Your task to perform on an android device: see sites visited before in the chrome app Image 0: 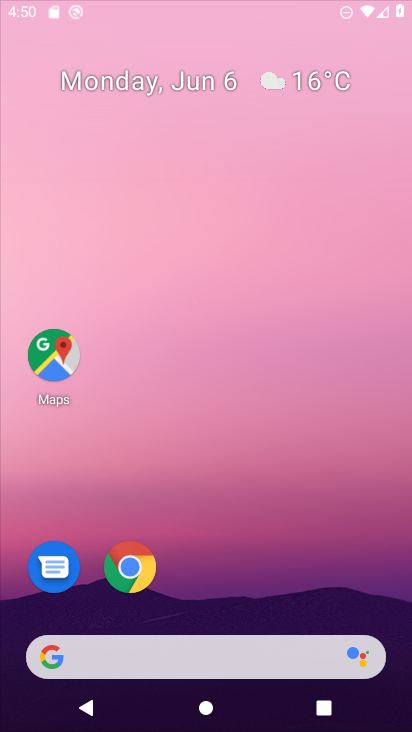
Step 0: drag from (227, 648) to (177, 247)
Your task to perform on an android device: see sites visited before in the chrome app Image 1: 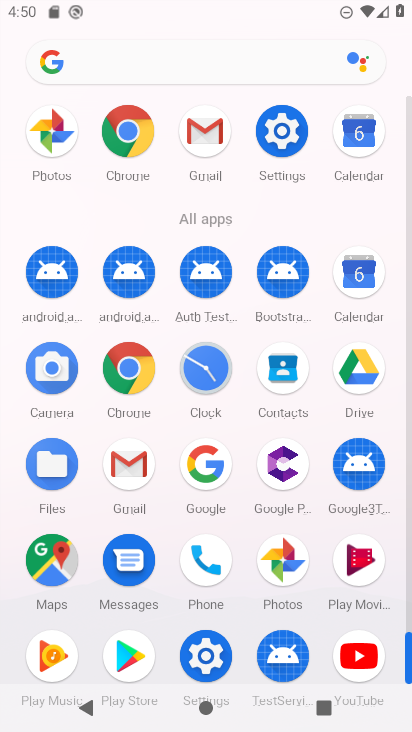
Step 1: click (140, 354)
Your task to perform on an android device: see sites visited before in the chrome app Image 2: 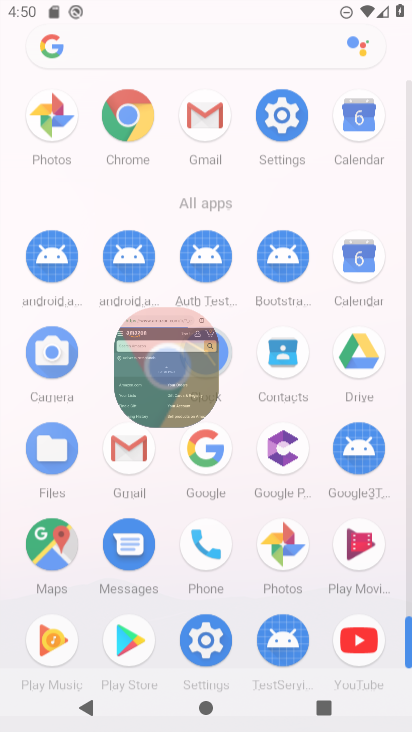
Step 2: click (140, 354)
Your task to perform on an android device: see sites visited before in the chrome app Image 3: 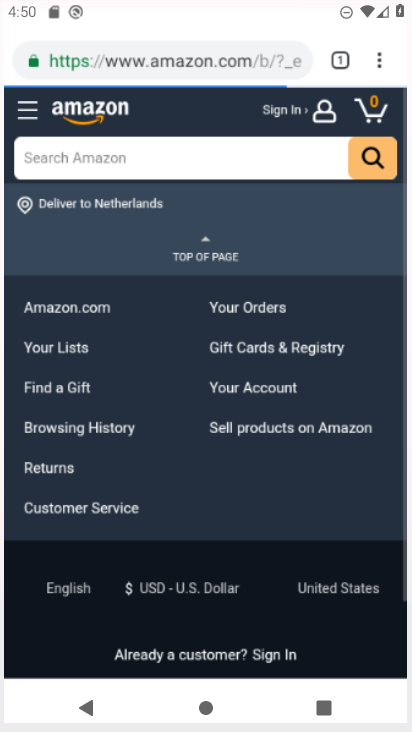
Step 3: click (140, 354)
Your task to perform on an android device: see sites visited before in the chrome app Image 4: 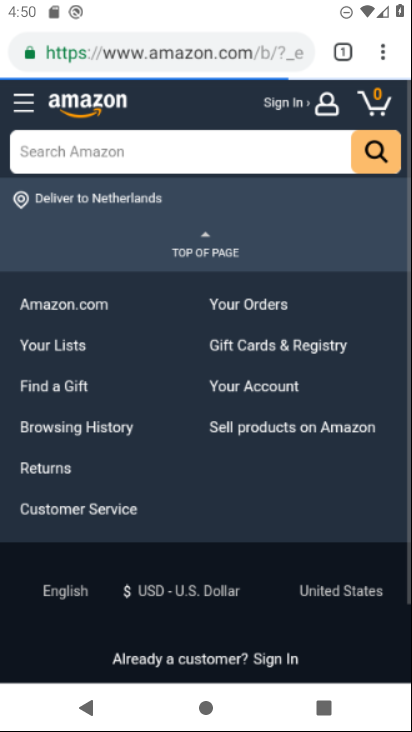
Step 4: click (140, 354)
Your task to perform on an android device: see sites visited before in the chrome app Image 5: 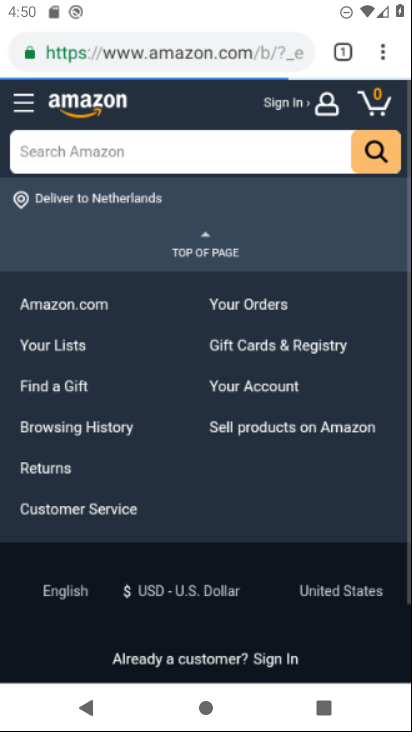
Step 5: click (140, 354)
Your task to perform on an android device: see sites visited before in the chrome app Image 6: 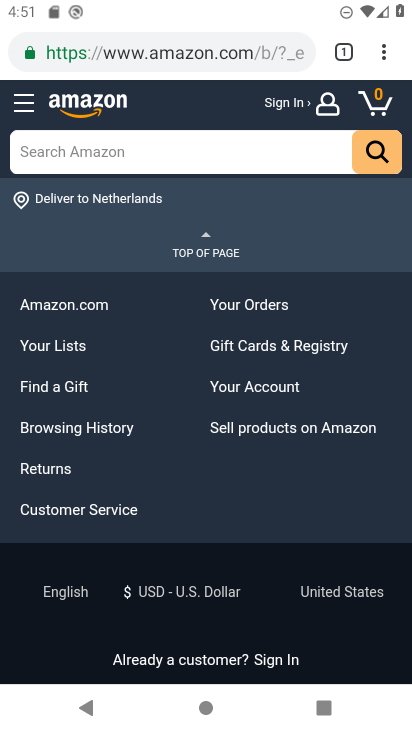
Step 6: drag from (382, 43) to (198, 249)
Your task to perform on an android device: see sites visited before in the chrome app Image 7: 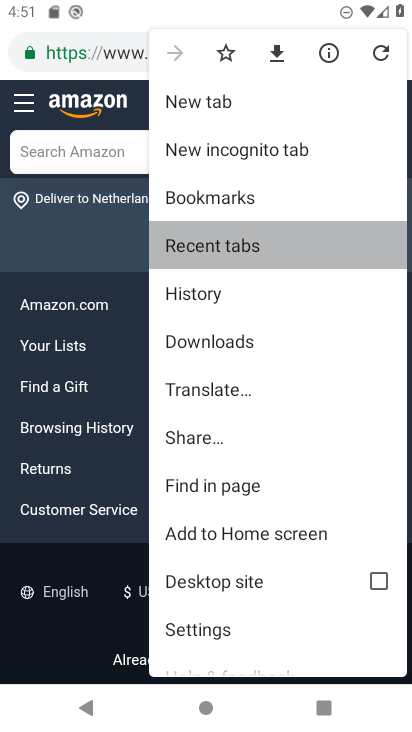
Step 7: click (197, 248)
Your task to perform on an android device: see sites visited before in the chrome app Image 8: 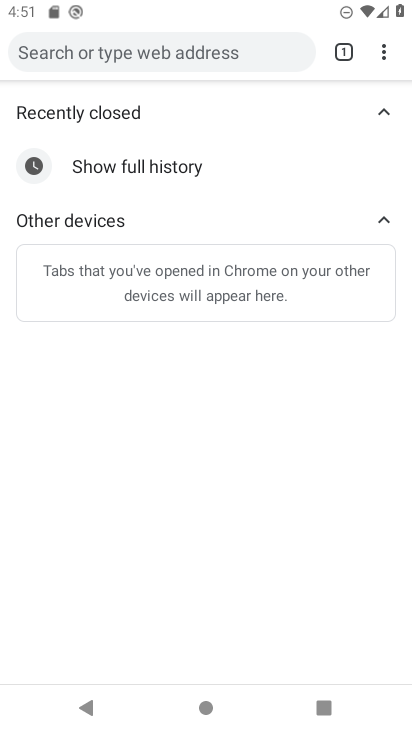
Step 8: task complete